Your task to perform on an android device: Open Android settings Image 0: 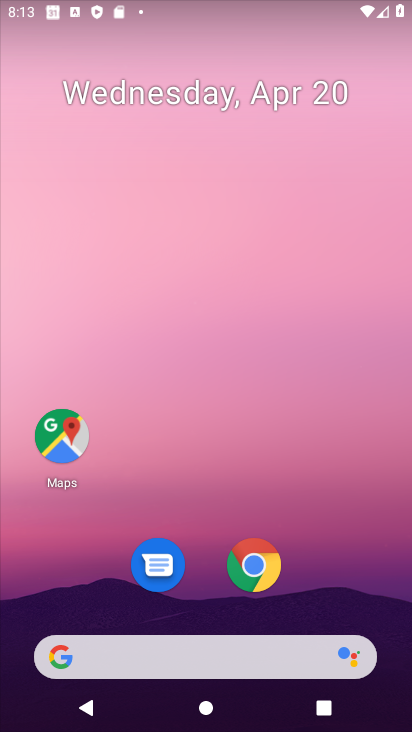
Step 0: drag from (362, 560) to (316, 59)
Your task to perform on an android device: Open Android settings Image 1: 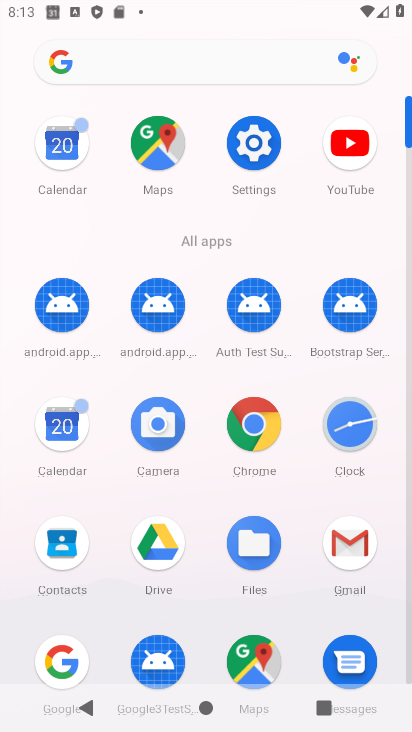
Step 1: click (254, 160)
Your task to perform on an android device: Open Android settings Image 2: 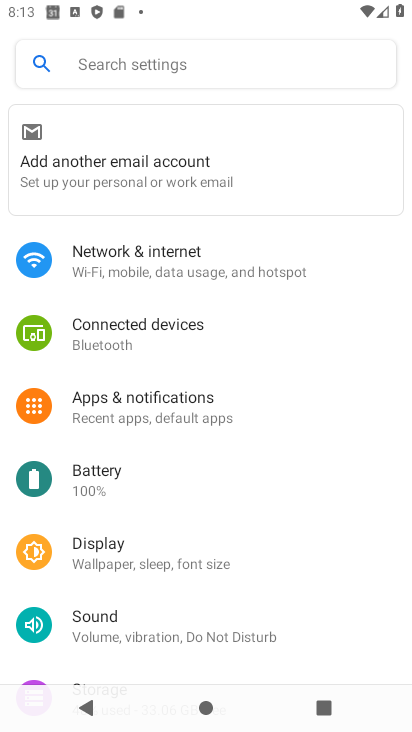
Step 2: drag from (174, 618) to (144, 231)
Your task to perform on an android device: Open Android settings Image 3: 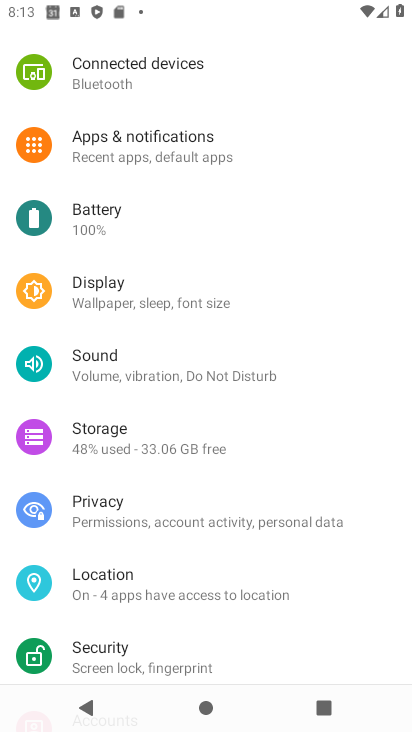
Step 3: drag from (178, 570) to (209, 113)
Your task to perform on an android device: Open Android settings Image 4: 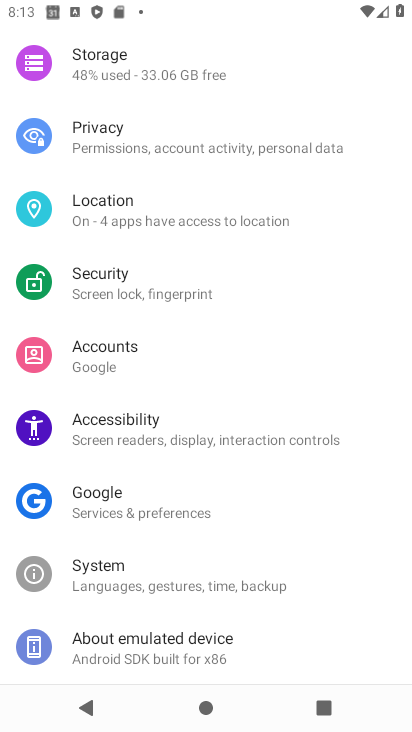
Step 4: drag from (268, 591) to (235, 191)
Your task to perform on an android device: Open Android settings Image 5: 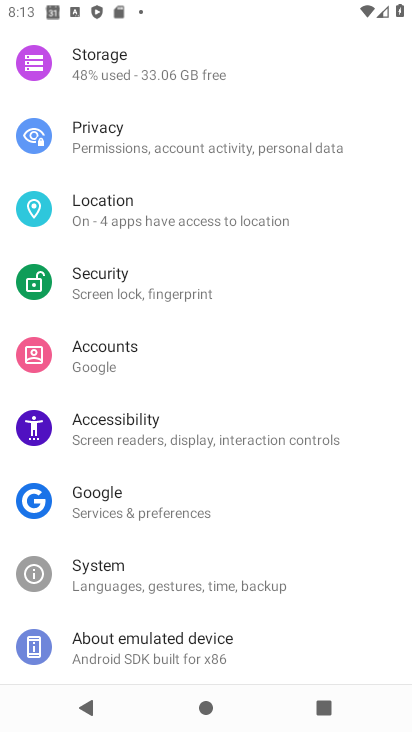
Step 5: click (186, 645)
Your task to perform on an android device: Open Android settings Image 6: 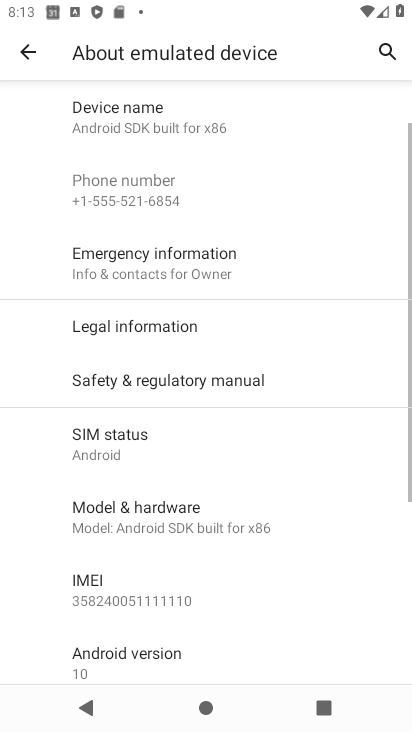
Step 6: task complete